Your task to perform on an android device: Go to settings Image 0: 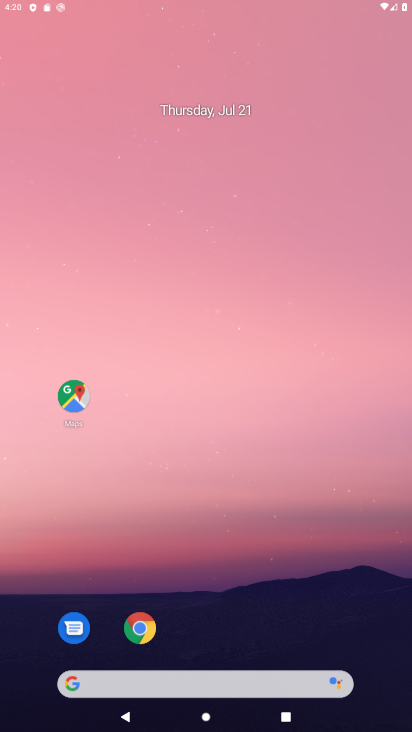
Step 0: press home button
Your task to perform on an android device: Go to settings Image 1: 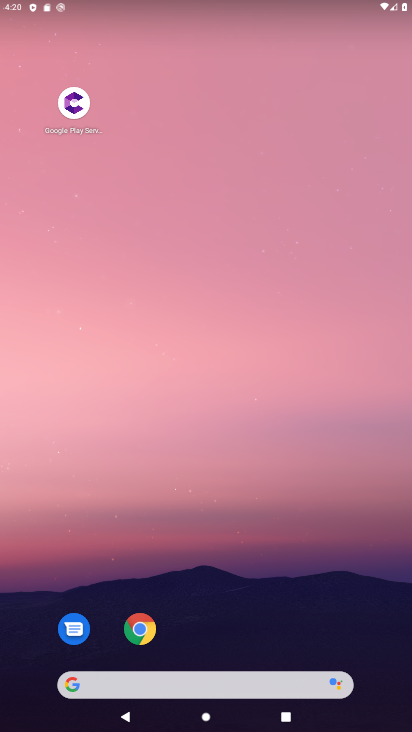
Step 1: click (235, 40)
Your task to perform on an android device: Go to settings Image 2: 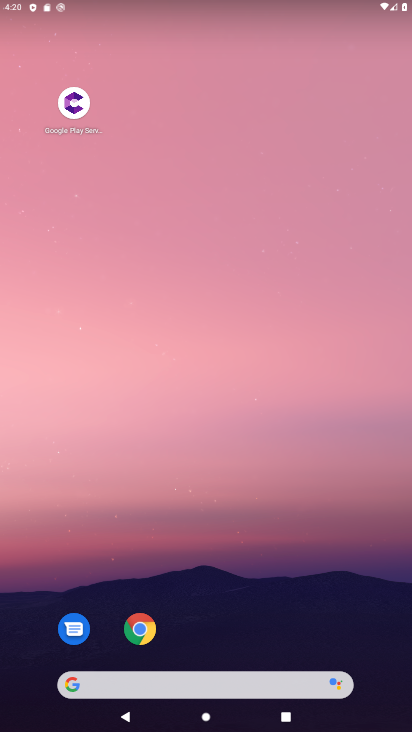
Step 2: drag from (223, 662) to (216, 5)
Your task to perform on an android device: Go to settings Image 3: 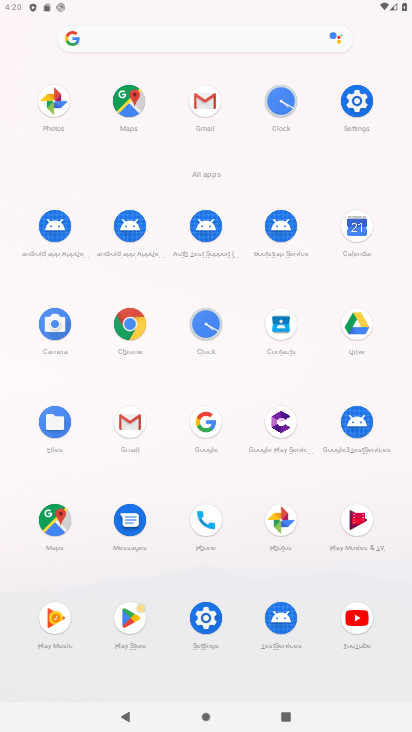
Step 3: click (359, 94)
Your task to perform on an android device: Go to settings Image 4: 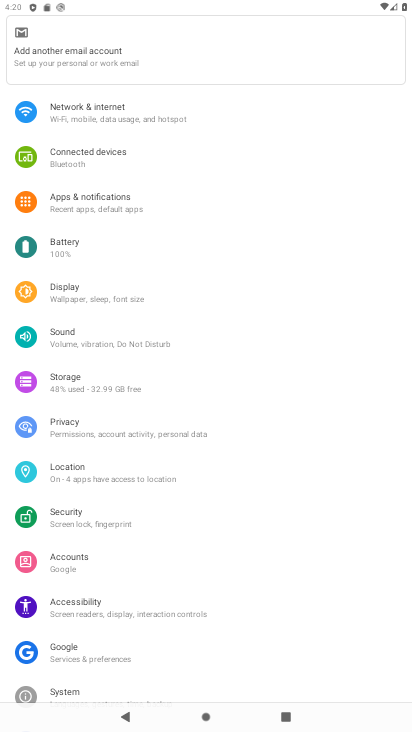
Step 4: task complete